Your task to perform on an android device: open chrome privacy settings Image 0: 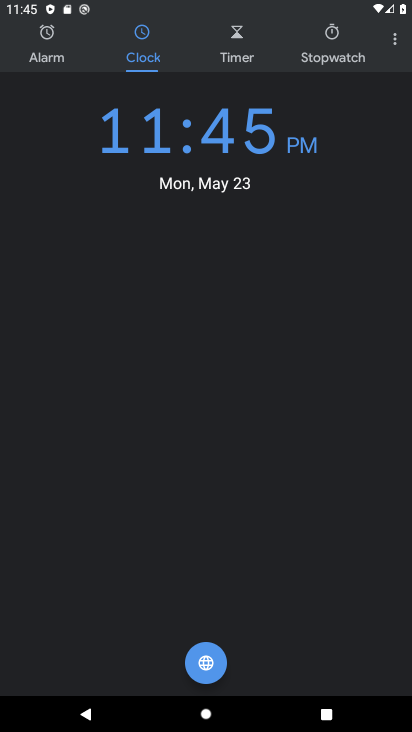
Step 0: press home button
Your task to perform on an android device: open chrome privacy settings Image 1: 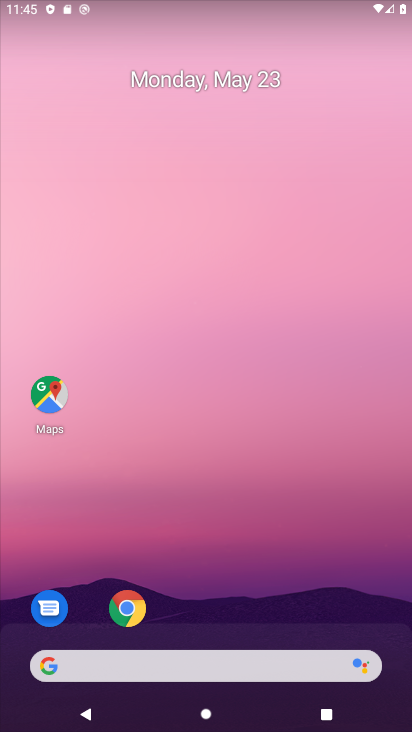
Step 1: drag from (240, 684) to (165, 43)
Your task to perform on an android device: open chrome privacy settings Image 2: 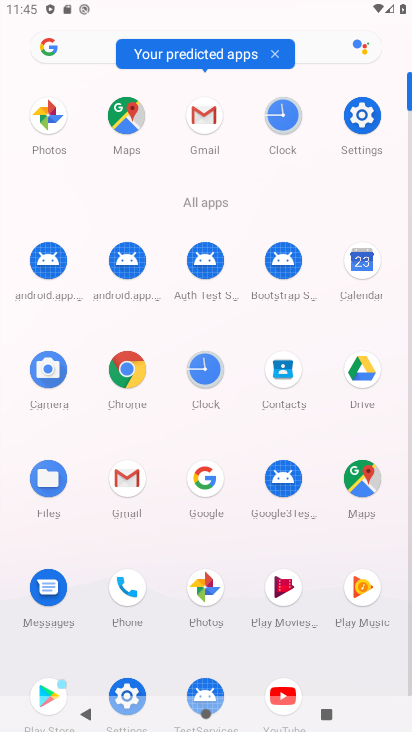
Step 2: click (133, 378)
Your task to perform on an android device: open chrome privacy settings Image 3: 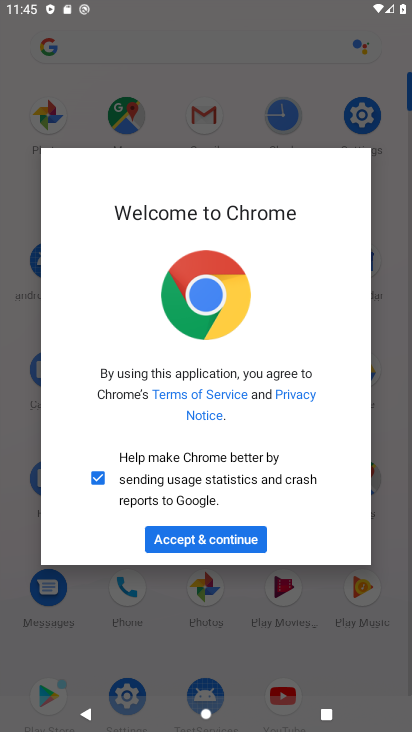
Step 3: click (204, 541)
Your task to perform on an android device: open chrome privacy settings Image 4: 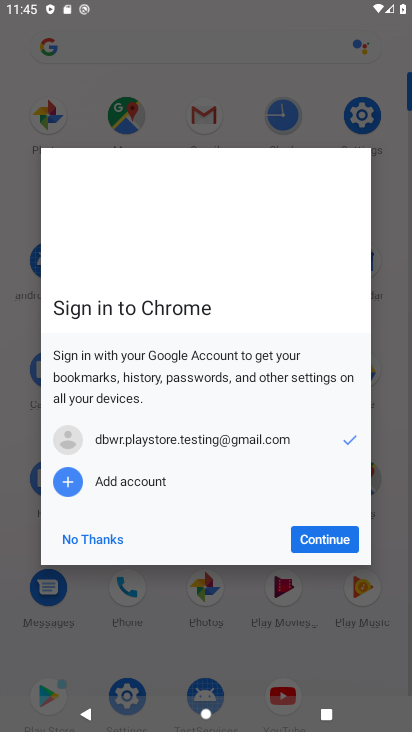
Step 4: click (330, 527)
Your task to perform on an android device: open chrome privacy settings Image 5: 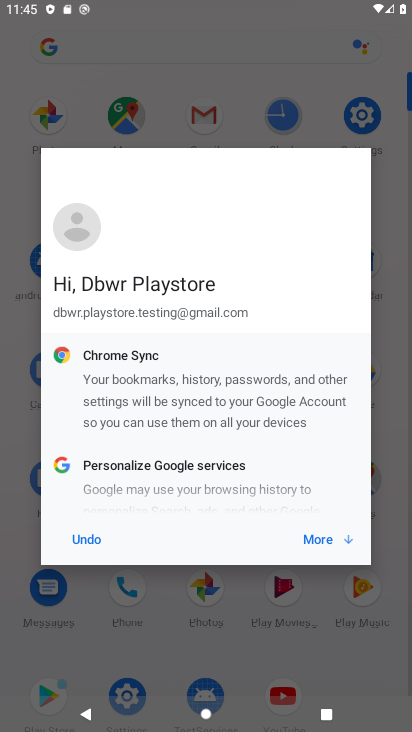
Step 5: click (332, 537)
Your task to perform on an android device: open chrome privacy settings Image 6: 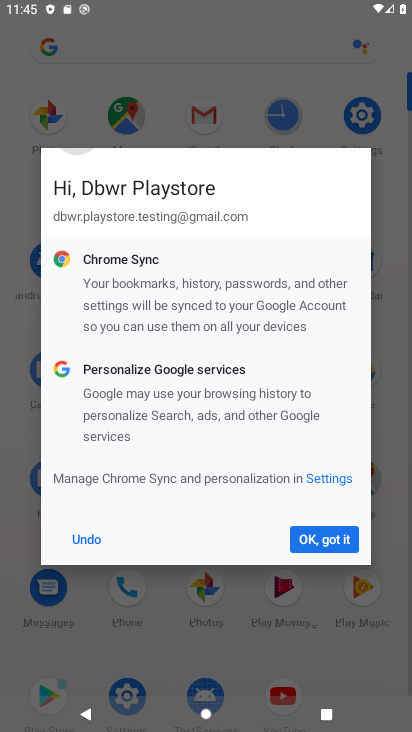
Step 6: click (333, 532)
Your task to perform on an android device: open chrome privacy settings Image 7: 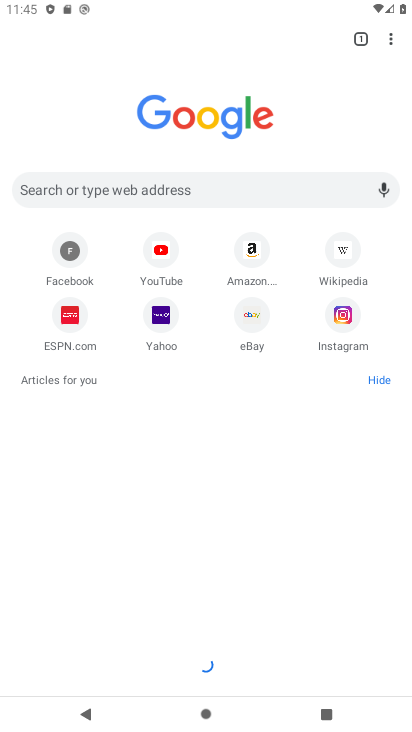
Step 7: click (389, 41)
Your task to perform on an android device: open chrome privacy settings Image 8: 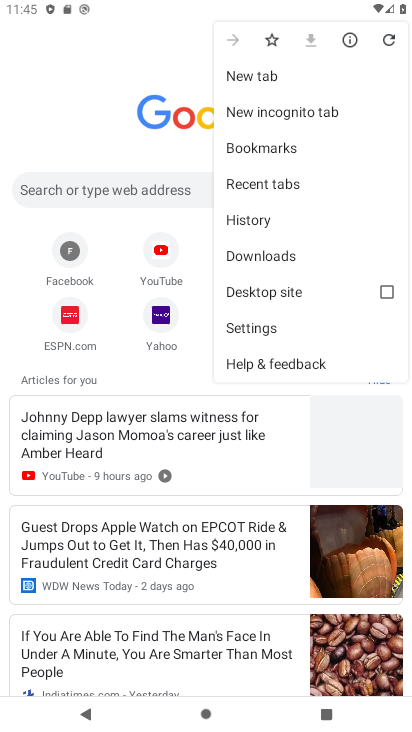
Step 8: click (276, 331)
Your task to perform on an android device: open chrome privacy settings Image 9: 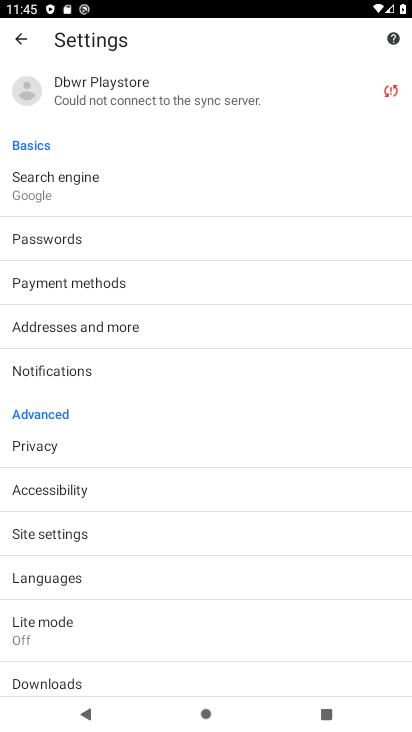
Step 9: click (46, 444)
Your task to perform on an android device: open chrome privacy settings Image 10: 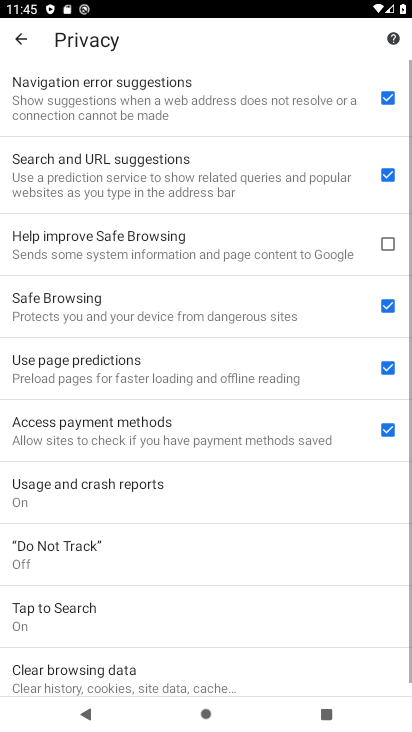
Step 10: task complete